Your task to perform on an android device: stop showing notifications on the lock screen Image 0: 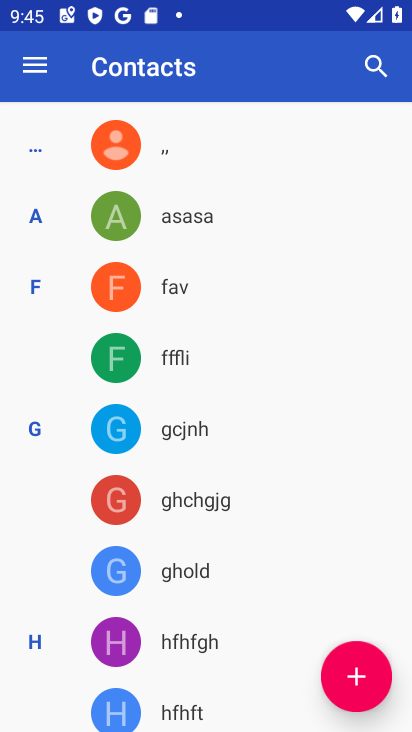
Step 0: press home button
Your task to perform on an android device: stop showing notifications on the lock screen Image 1: 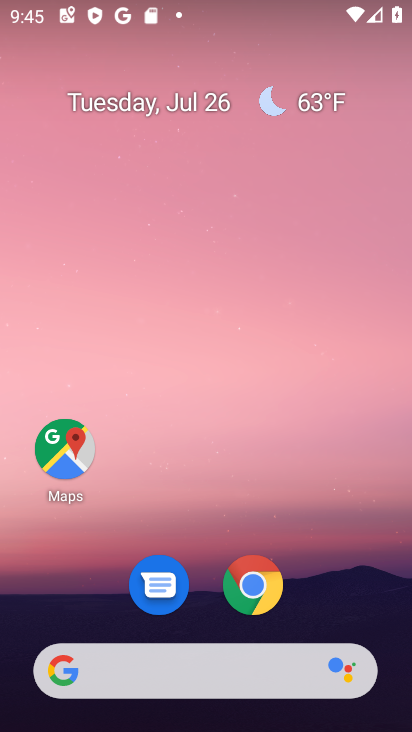
Step 1: drag from (354, 592) to (387, 51)
Your task to perform on an android device: stop showing notifications on the lock screen Image 2: 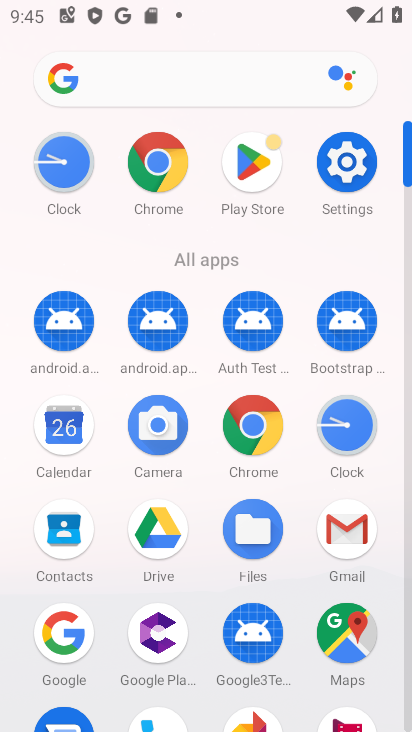
Step 2: click (341, 154)
Your task to perform on an android device: stop showing notifications on the lock screen Image 3: 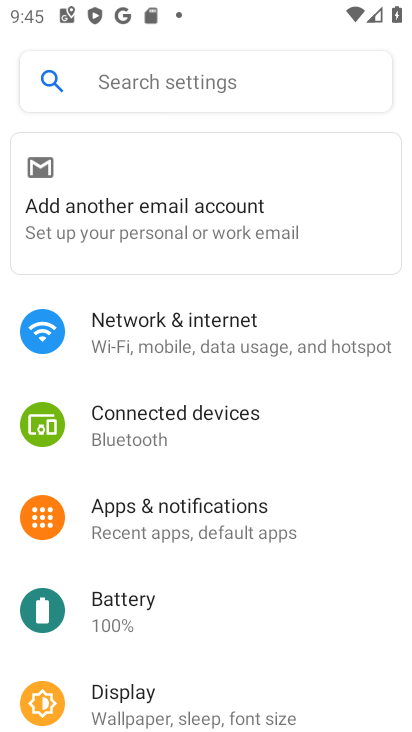
Step 3: click (221, 508)
Your task to perform on an android device: stop showing notifications on the lock screen Image 4: 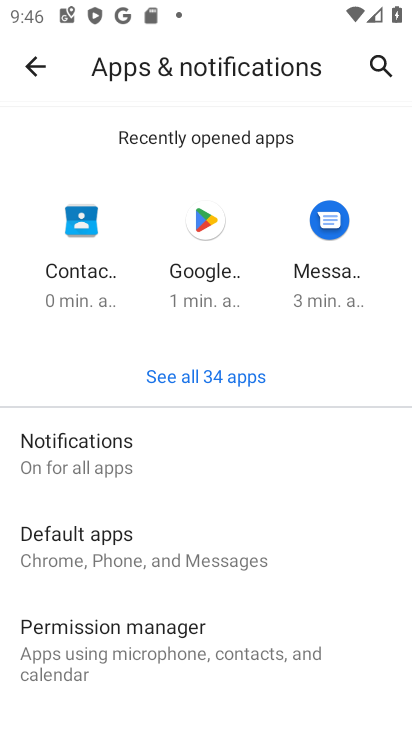
Step 4: click (100, 456)
Your task to perform on an android device: stop showing notifications on the lock screen Image 5: 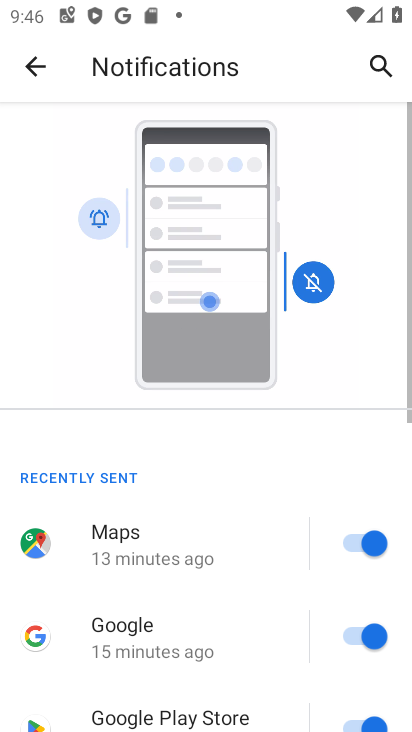
Step 5: drag from (241, 493) to (248, 244)
Your task to perform on an android device: stop showing notifications on the lock screen Image 6: 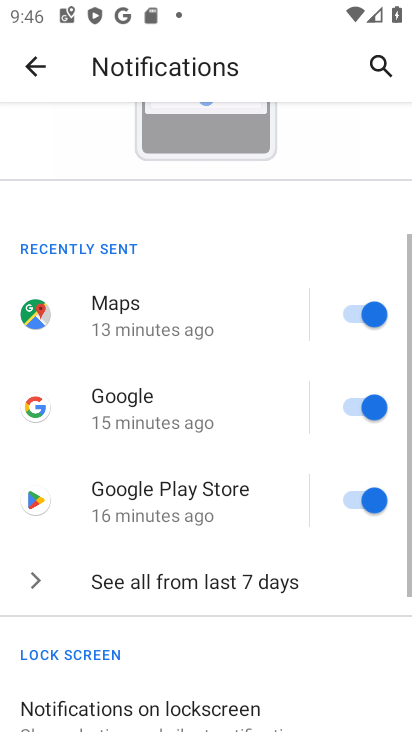
Step 6: click (248, 194)
Your task to perform on an android device: stop showing notifications on the lock screen Image 7: 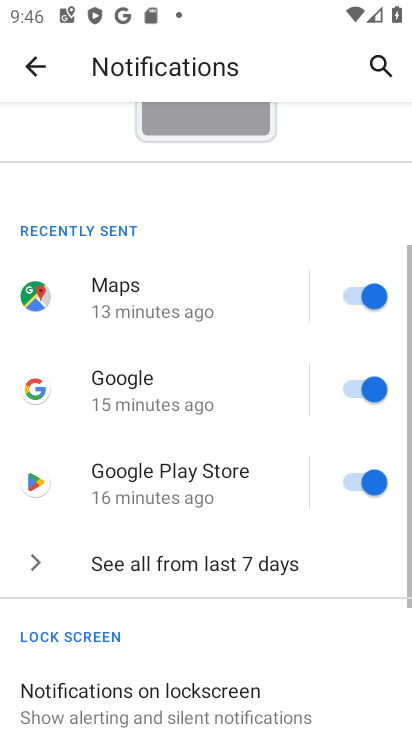
Step 7: drag from (249, 130) to (249, 9)
Your task to perform on an android device: stop showing notifications on the lock screen Image 8: 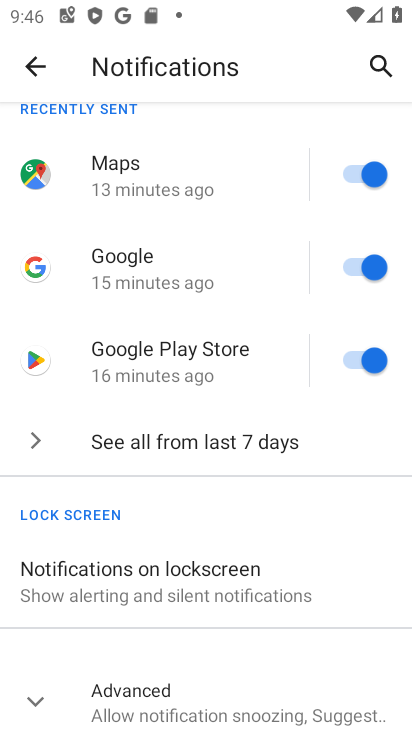
Step 8: click (182, 576)
Your task to perform on an android device: stop showing notifications on the lock screen Image 9: 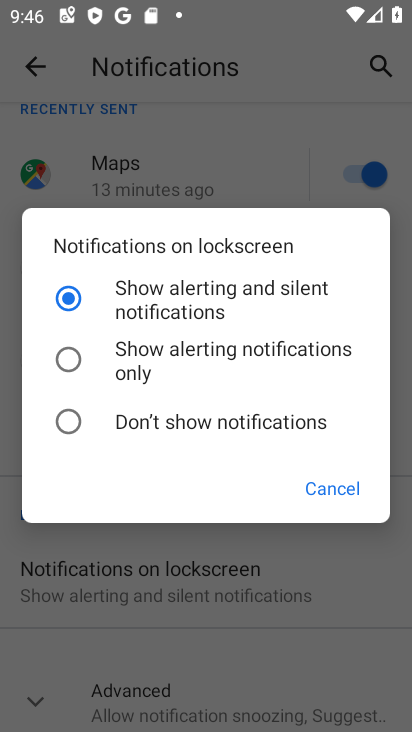
Step 9: click (70, 419)
Your task to perform on an android device: stop showing notifications on the lock screen Image 10: 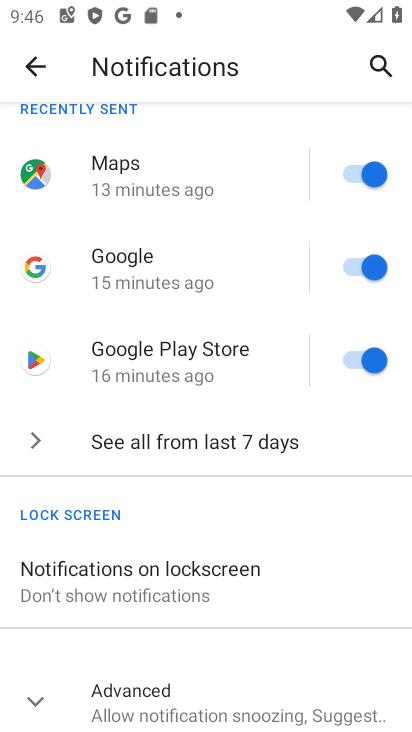
Step 10: task complete